Your task to perform on an android device: open the mobile data screen to see how much data has been used Image 0: 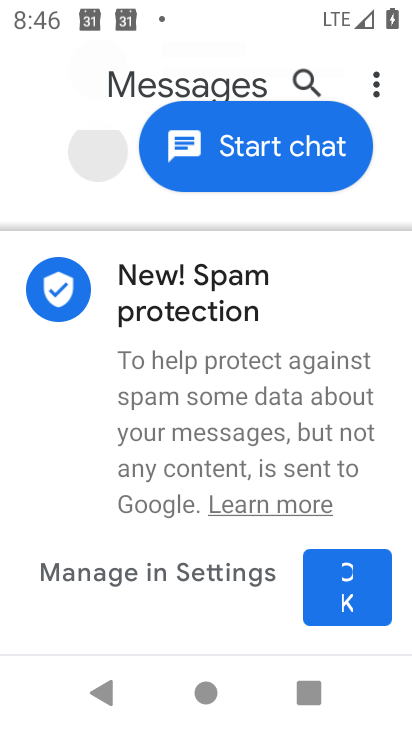
Step 0: press home button
Your task to perform on an android device: open the mobile data screen to see how much data has been used Image 1: 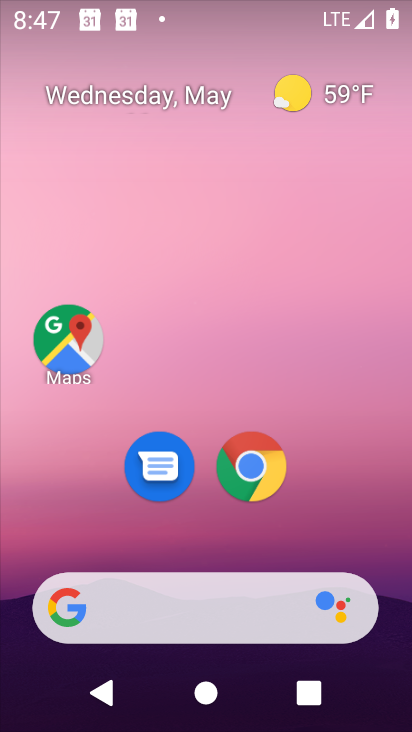
Step 1: drag from (314, 474) to (348, 148)
Your task to perform on an android device: open the mobile data screen to see how much data has been used Image 2: 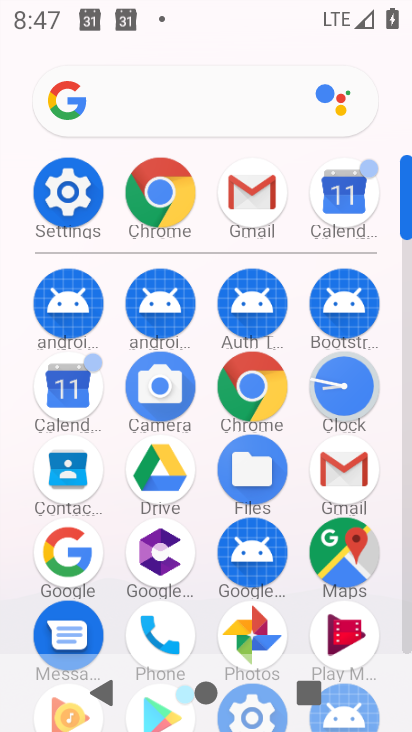
Step 2: click (50, 187)
Your task to perform on an android device: open the mobile data screen to see how much data has been used Image 3: 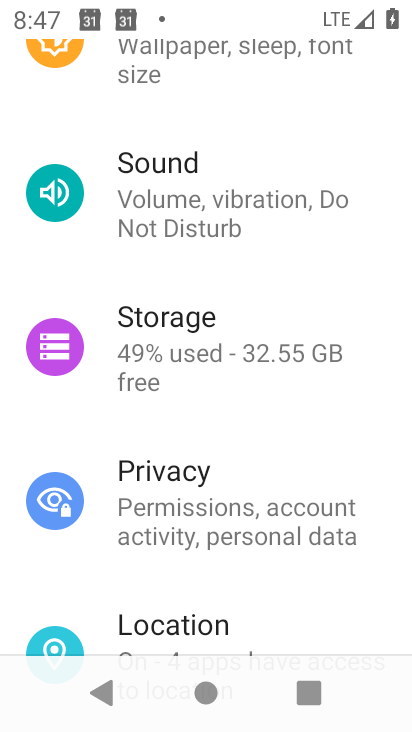
Step 3: drag from (234, 175) to (270, 630)
Your task to perform on an android device: open the mobile data screen to see how much data has been used Image 4: 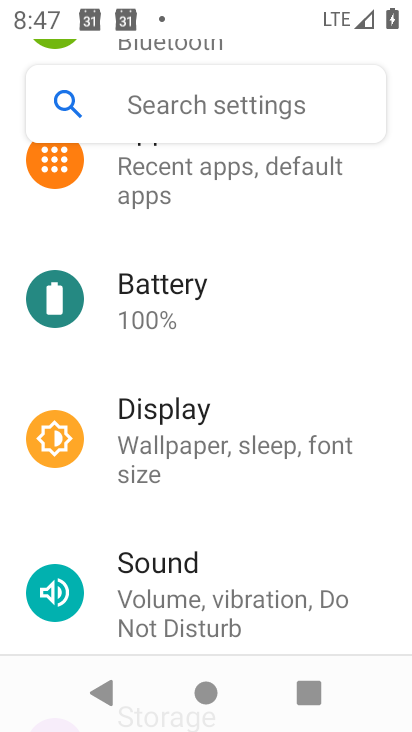
Step 4: drag from (243, 203) to (262, 663)
Your task to perform on an android device: open the mobile data screen to see how much data has been used Image 5: 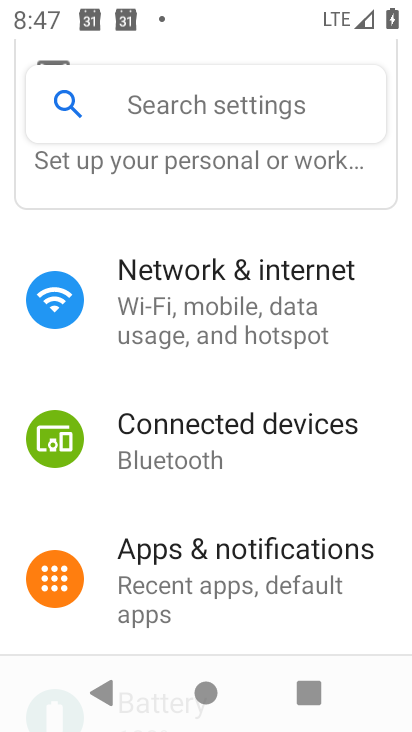
Step 5: click (235, 291)
Your task to perform on an android device: open the mobile data screen to see how much data has been used Image 6: 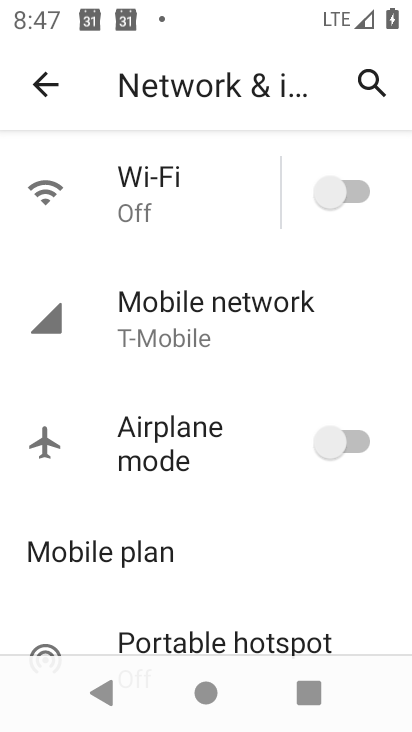
Step 6: click (166, 309)
Your task to perform on an android device: open the mobile data screen to see how much data has been used Image 7: 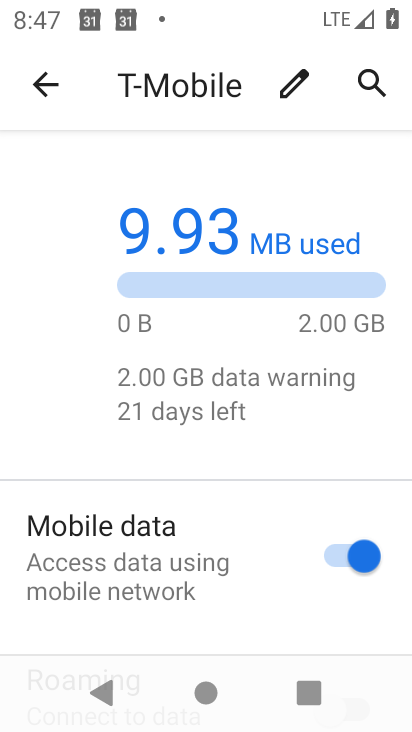
Step 7: drag from (245, 546) to (253, 511)
Your task to perform on an android device: open the mobile data screen to see how much data has been used Image 8: 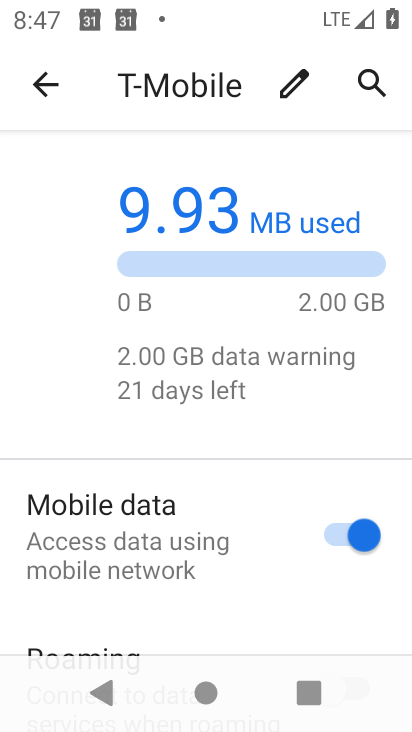
Step 8: drag from (218, 618) to (229, 0)
Your task to perform on an android device: open the mobile data screen to see how much data has been used Image 9: 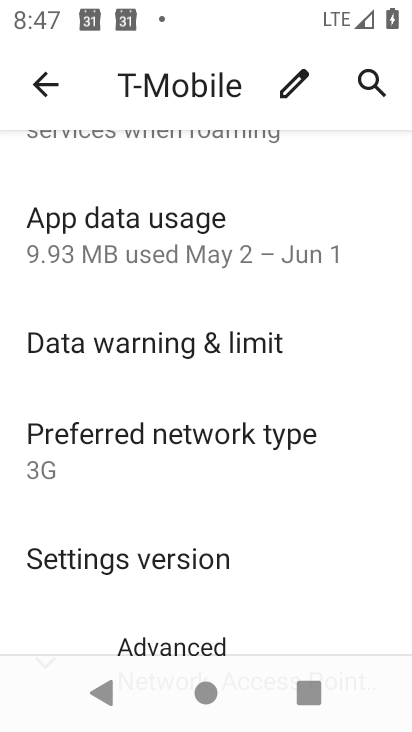
Step 9: click (201, 249)
Your task to perform on an android device: open the mobile data screen to see how much data has been used Image 10: 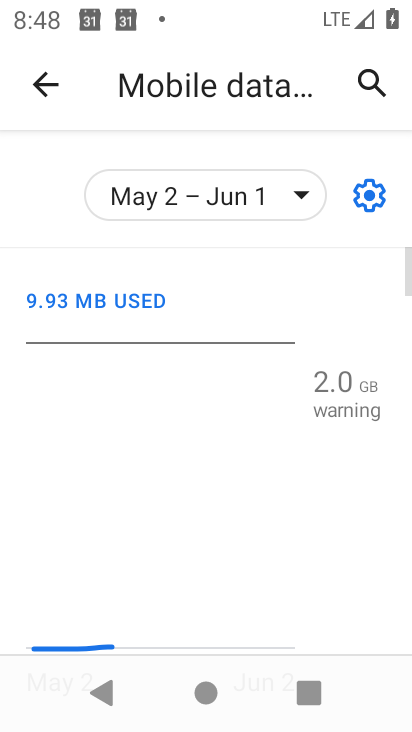
Step 10: task complete